Your task to perform on an android device: toggle location history Image 0: 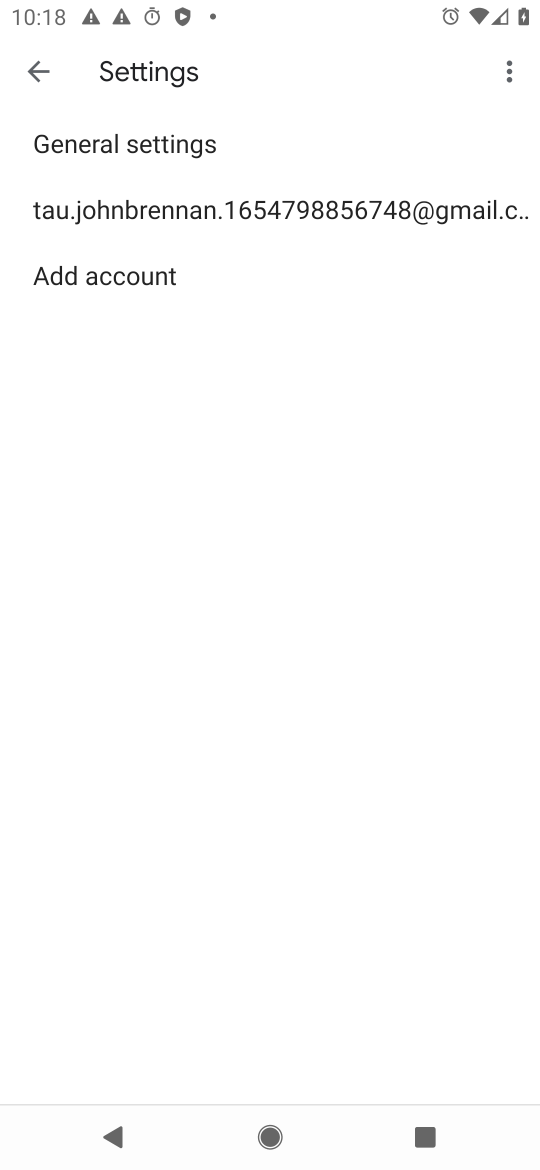
Step 0: drag from (244, 825) to (242, 306)
Your task to perform on an android device: toggle location history Image 1: 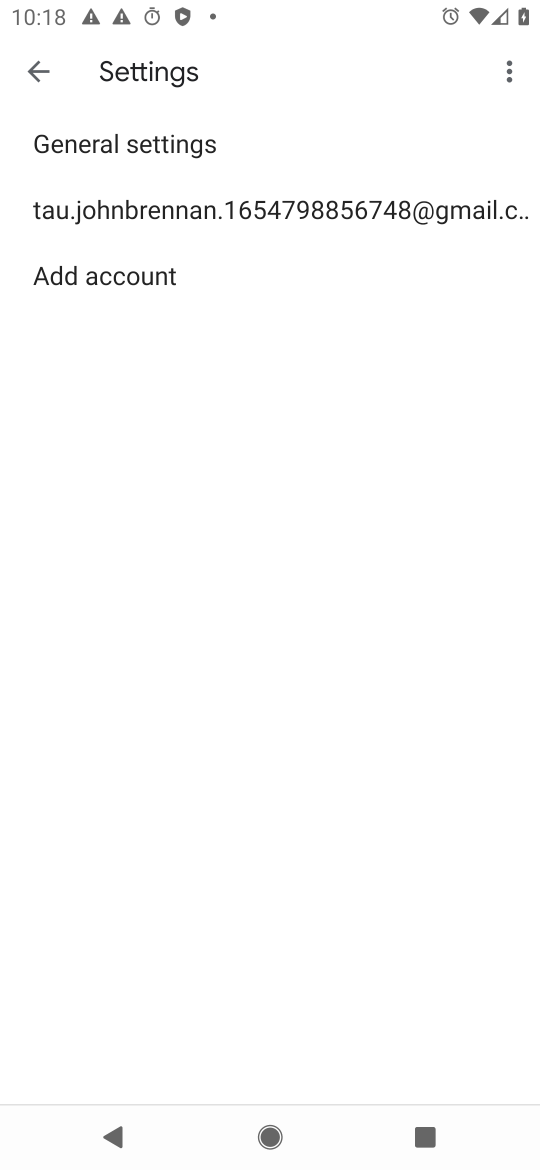
Step 1: press home button
Your task to perform on an android device: toggle location history Image 2: 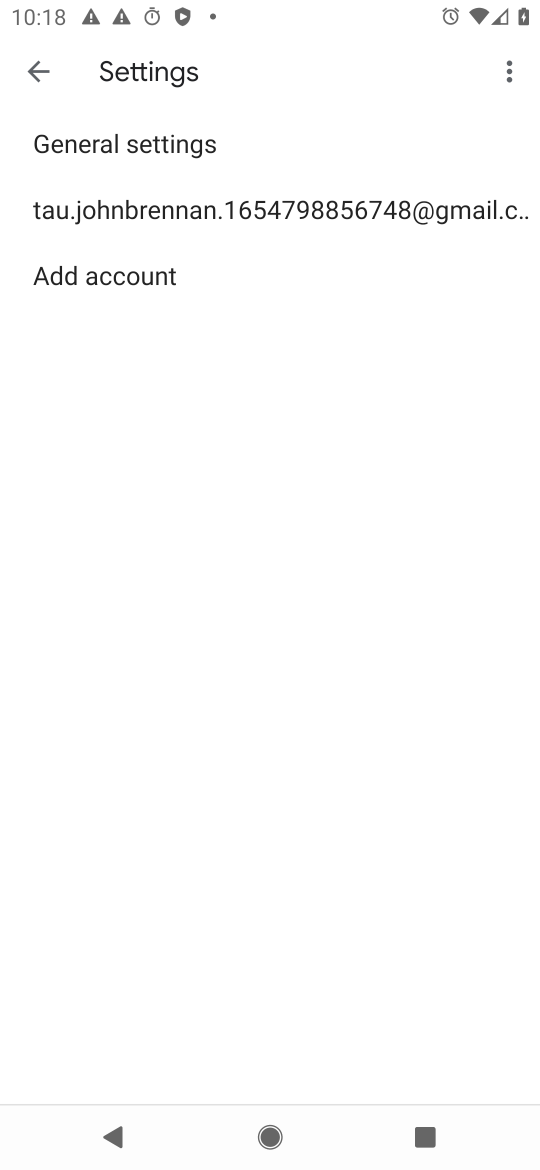
Step 2: drag from (294, 923) to (384, 163)
Your task to perform on an android device: toggle location history Image 3: 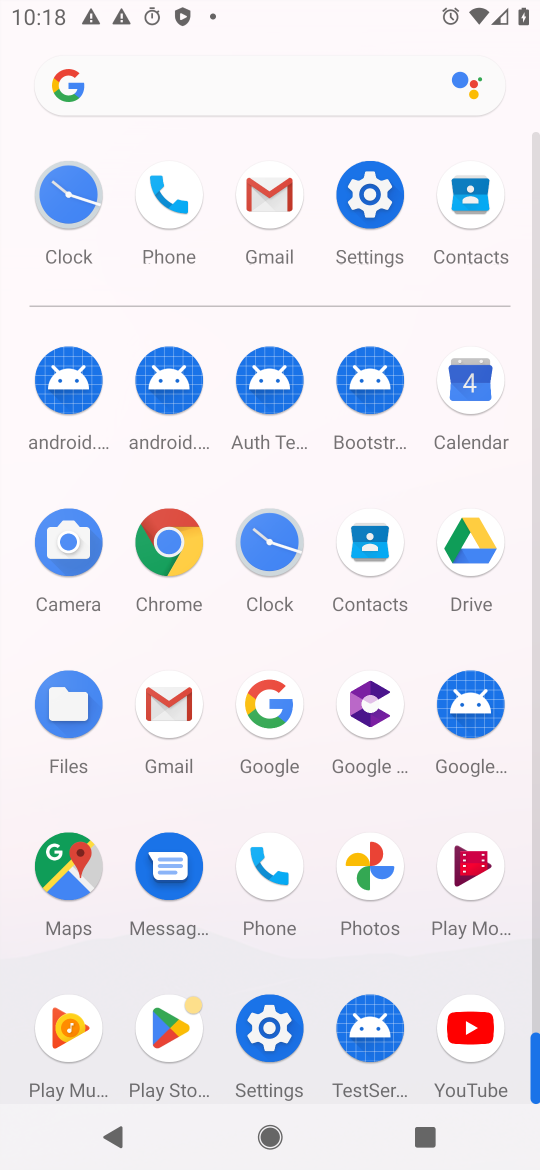
Step 3: click (254, 1037)
Your task to perform on an android device: toggle location history Image 4: 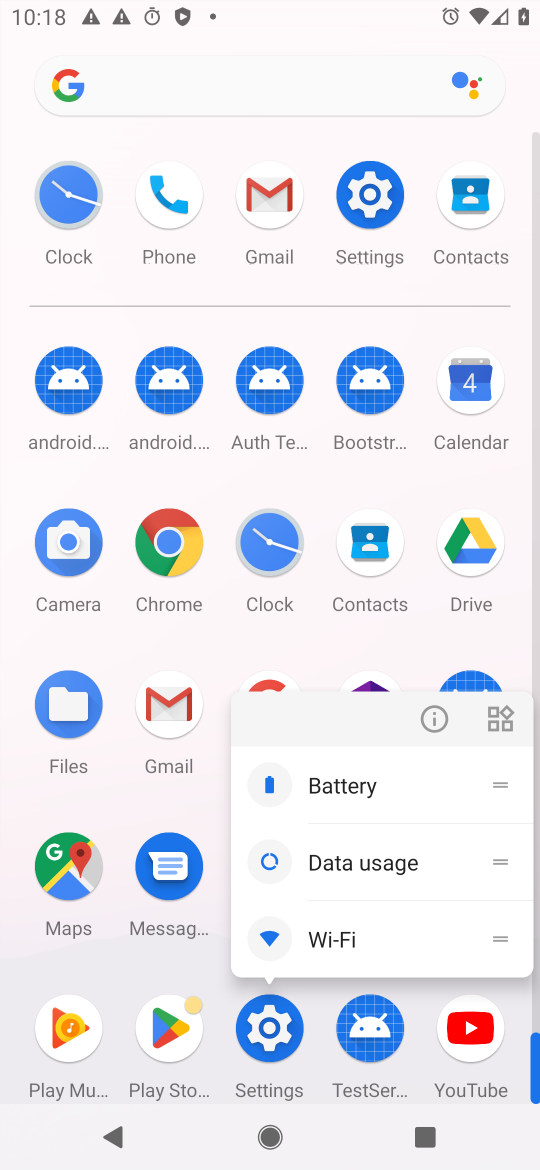
Step 4: click (424, 723)
Your task to perform on an android device: toggle location history Image 5: 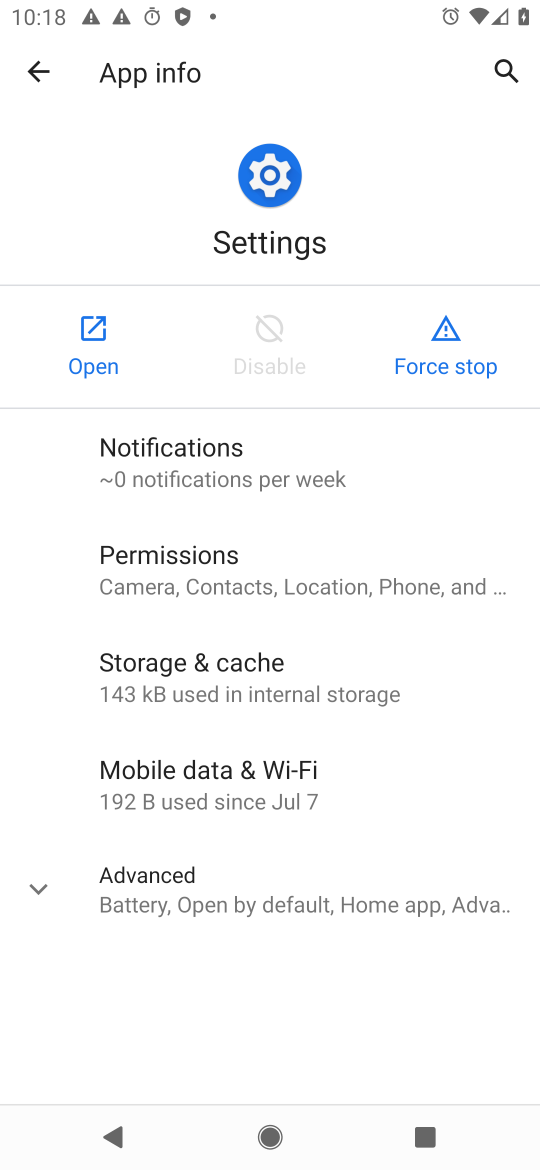
Step 5: click (105, 369)
Your task to perform on an android device: toggle location history Image 6: 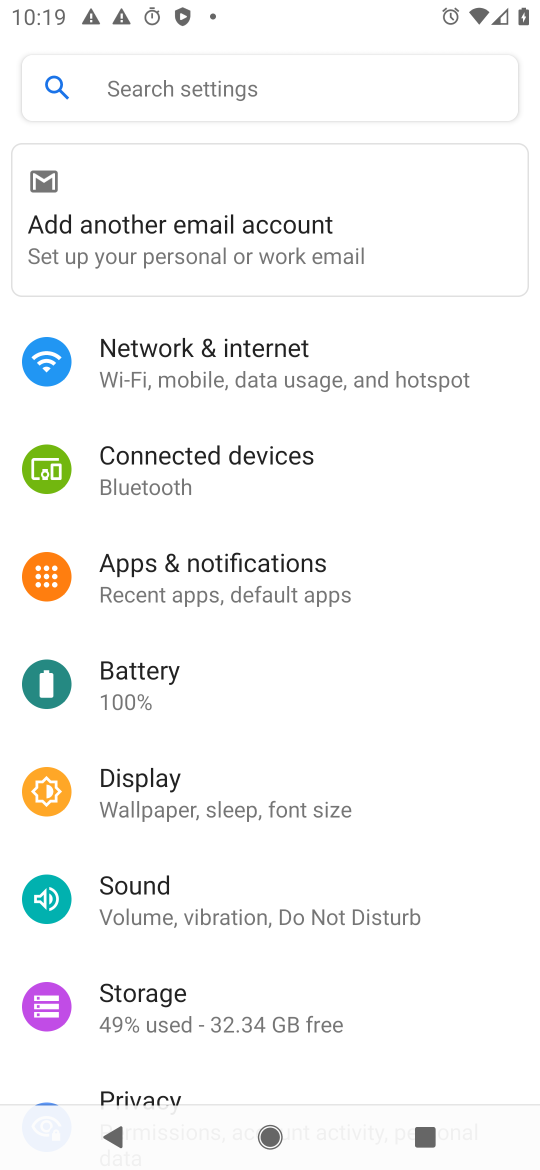
Step 6: drag from (179, 879) to (194, 216)
Your task to perform on an android device: toggle location history Image 7: 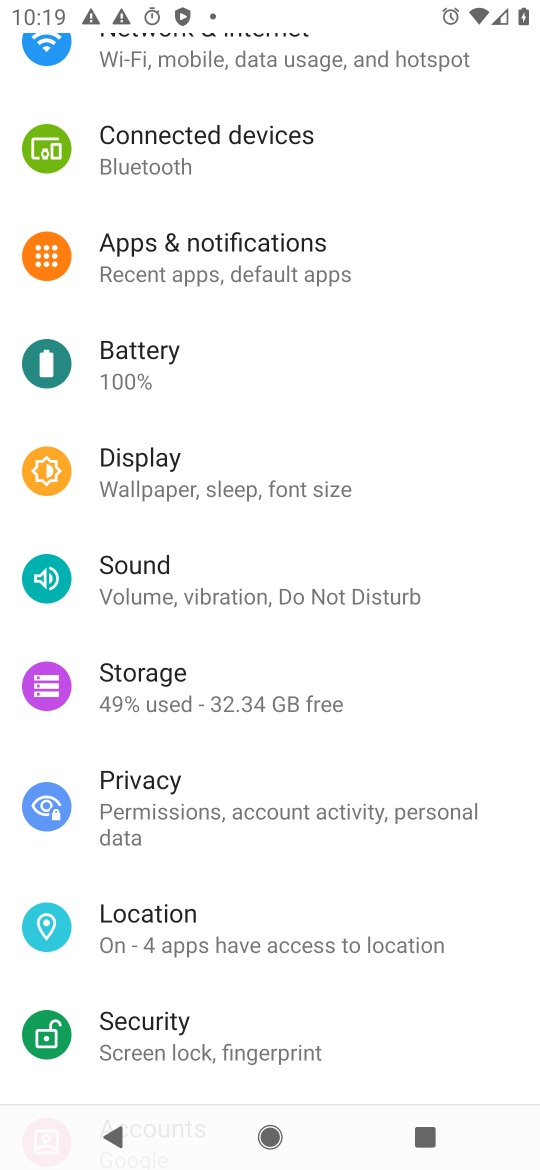
Step 7: drag from (277, 943) to (292, 466)
Your task to perform on an android device: toggle location history Image 8: 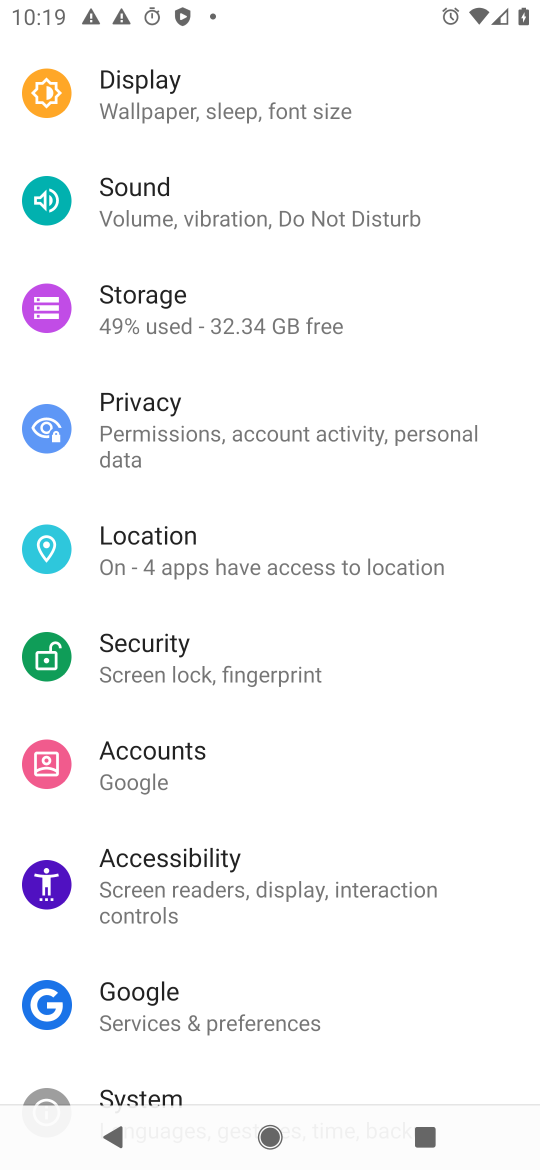
Step 8: drag from (225, 899) to (264, 464)
Your task to perform on an android device: toggle location history Image 9: 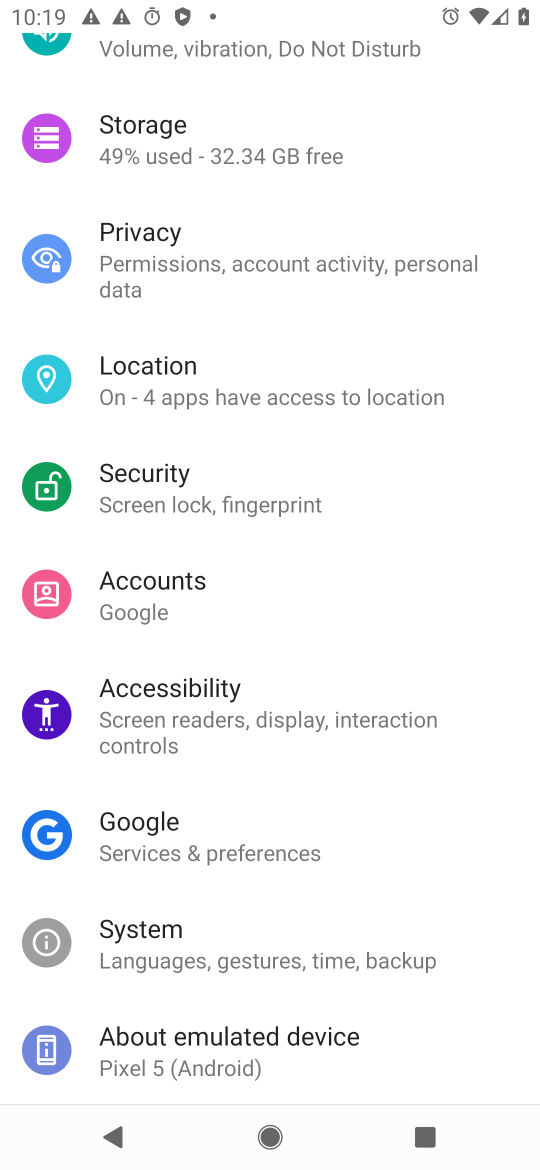
Step 9: click (213, 393)
Your task to perform on an android device: toggle location history Image 10: 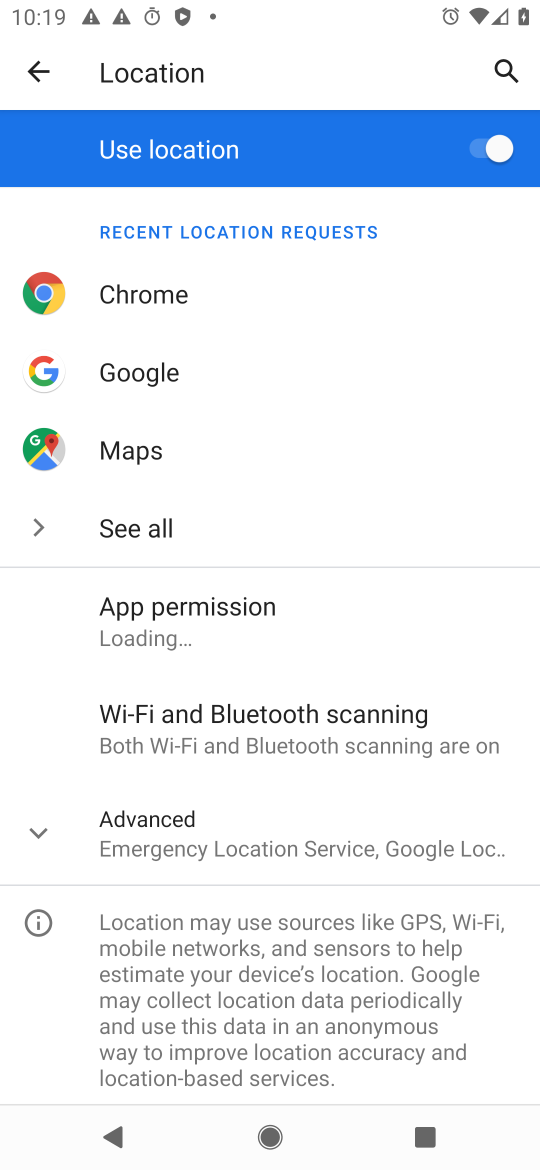
Step 10: click (171, 855)
Your task to perform on an android device: toggle location history Image 11: 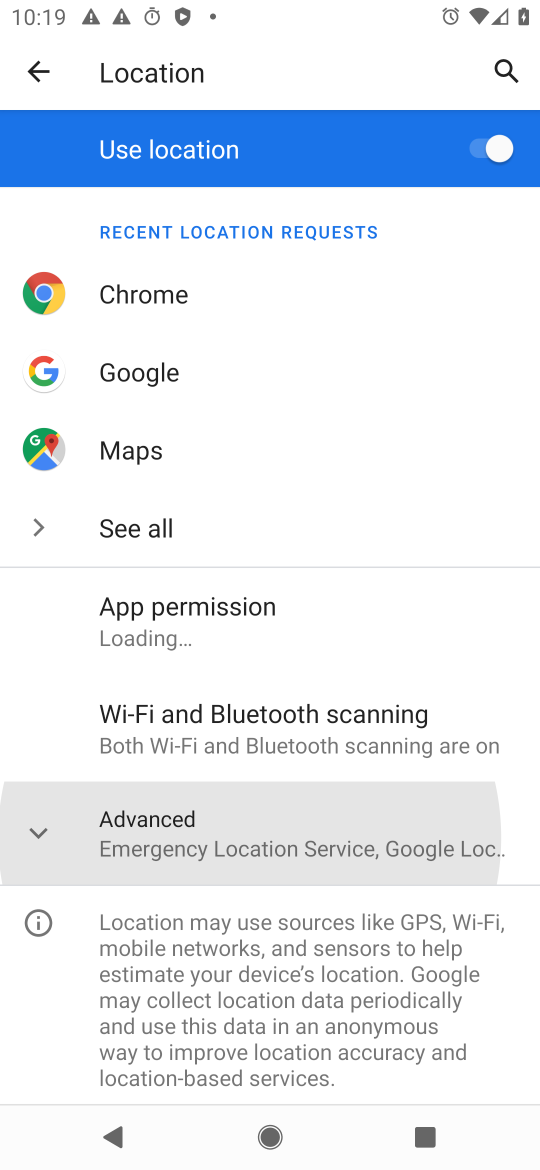
Step 11: drag from (183, 717) to (386, 194)
Your task to perform on an android device: toggle location history Image 12: 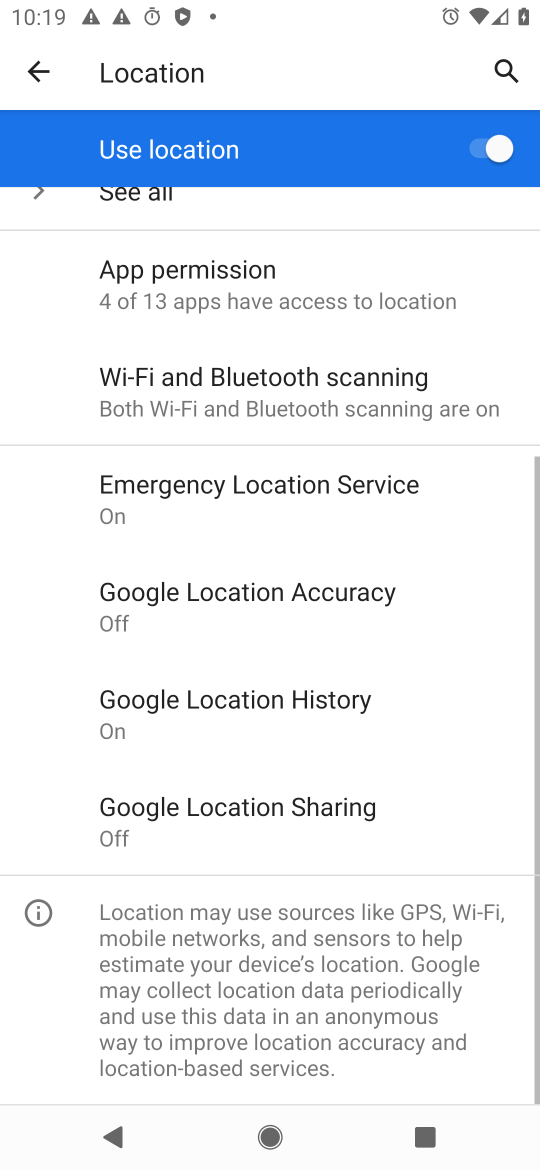
Step 12: click (285, 715)
Your task to perform on an android device: toggle location history Image 13: 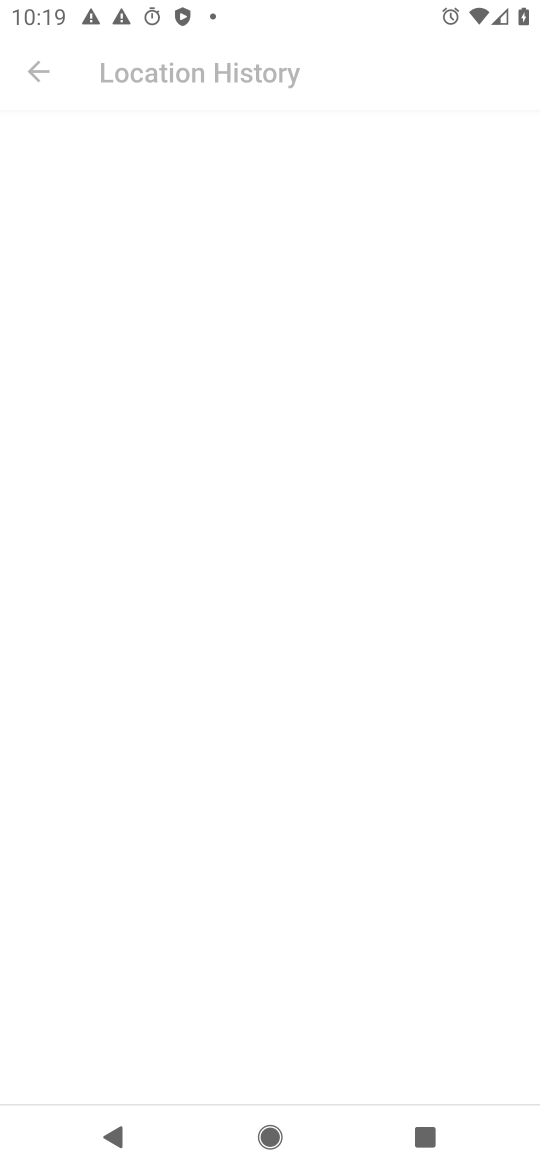
Step 13: drag from (290, 844) to (223, 422)
Your task to perform on an android device: toggle location history Image 14: 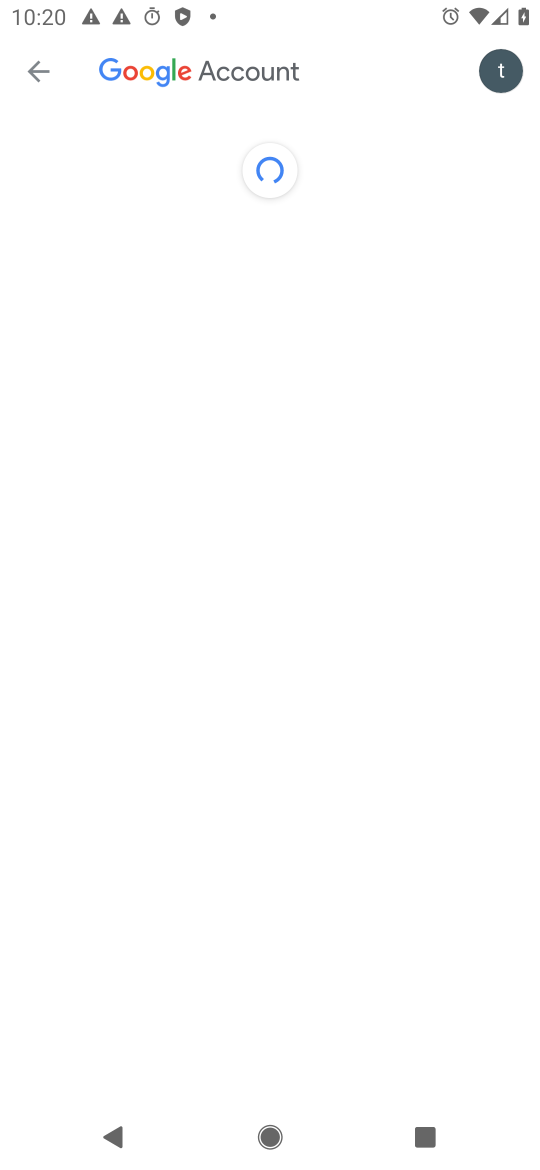
Step 14: drag from (196, 1041) to (220, 673)
Your task to perform on an android device: toggle location history Image 15: 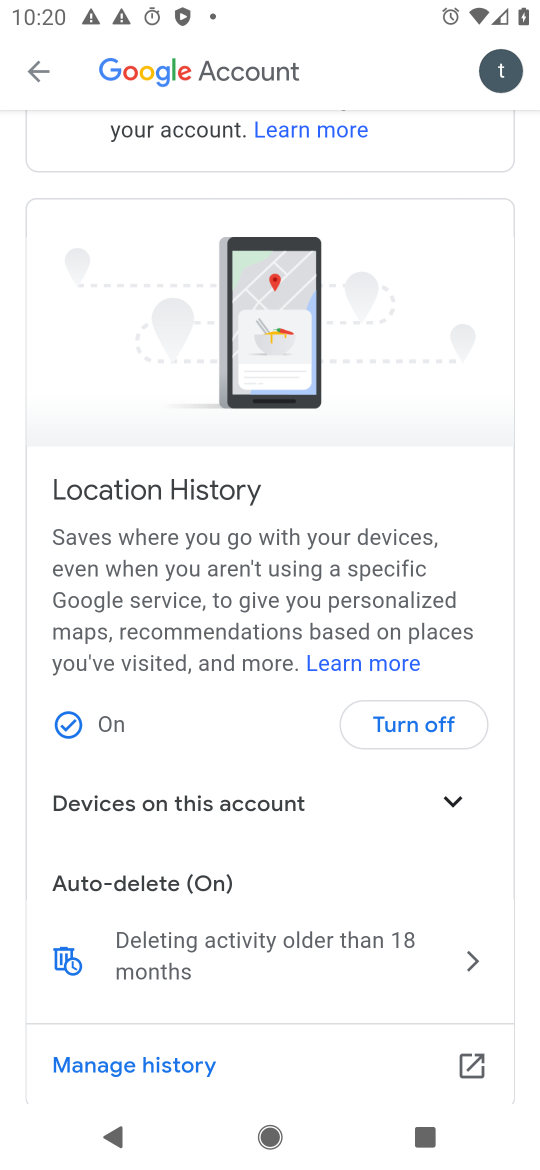
Step 15: click (417, 714)
Your task to perform on an android device: toggle location history Image 16: 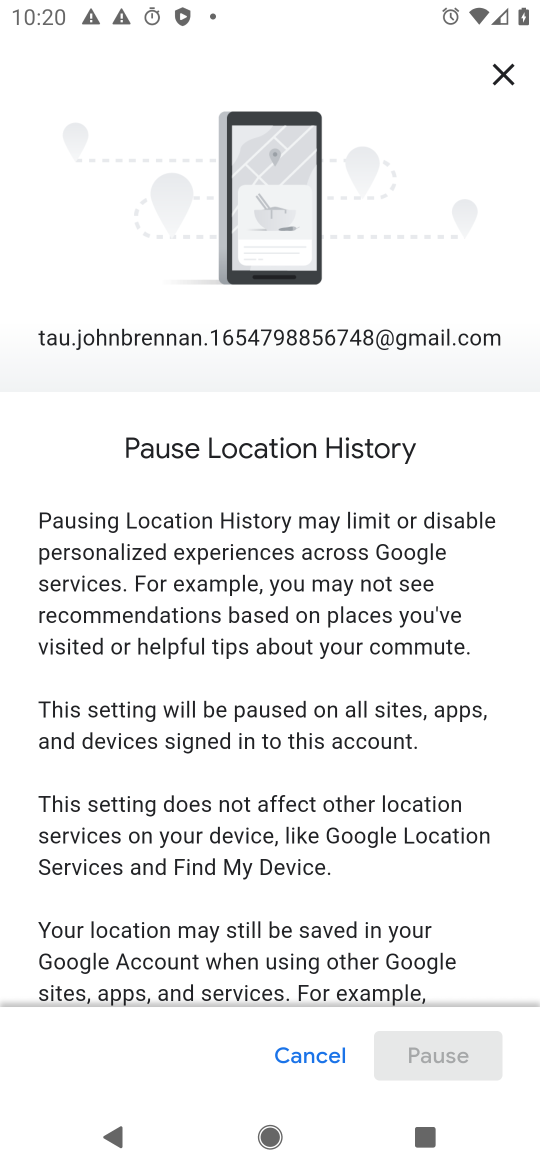
Step 16: drag from (300, 915) to (351, 284)
Your task to perform on an android device: toggle location history Image 17: 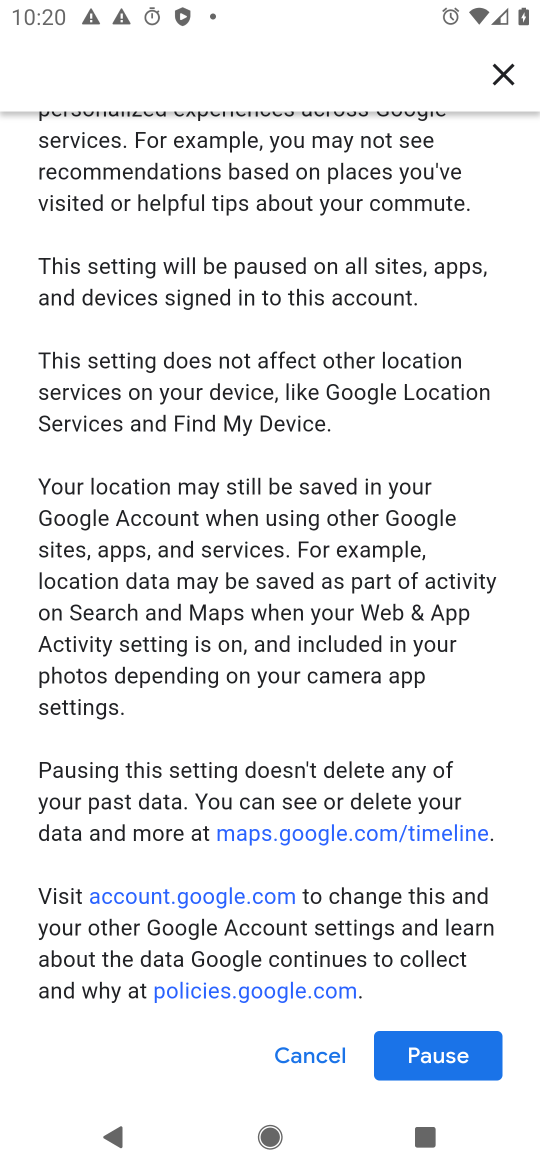
Step 17: click (461, 1057)
Your task to perform on an android device: toggle location history Image 18: 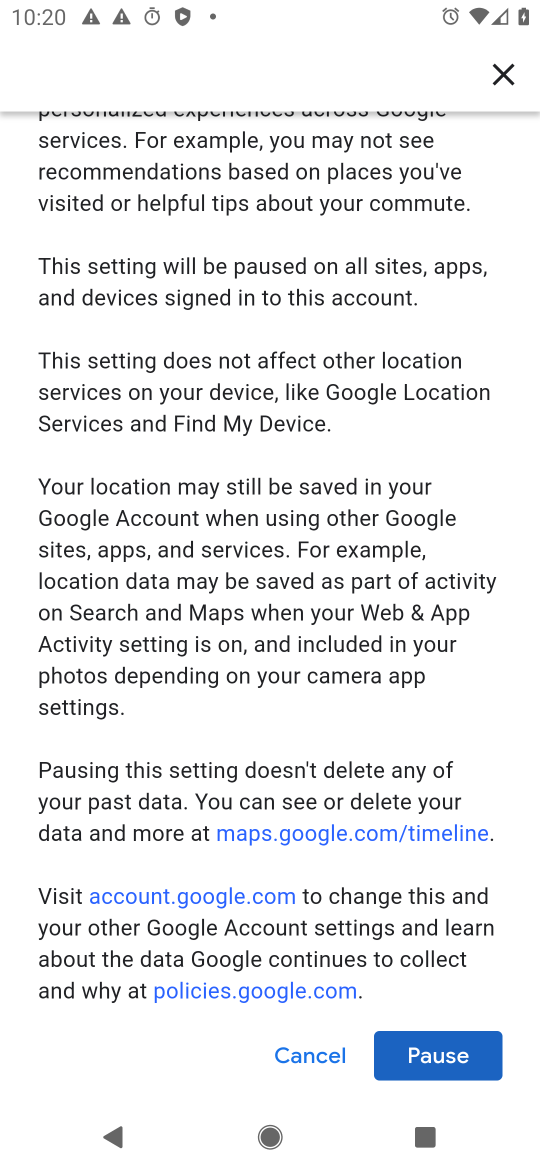
Step 18: drag from (285, 698) to (257, 286)
Your task to perform on an android device: toggle location history Image 19: 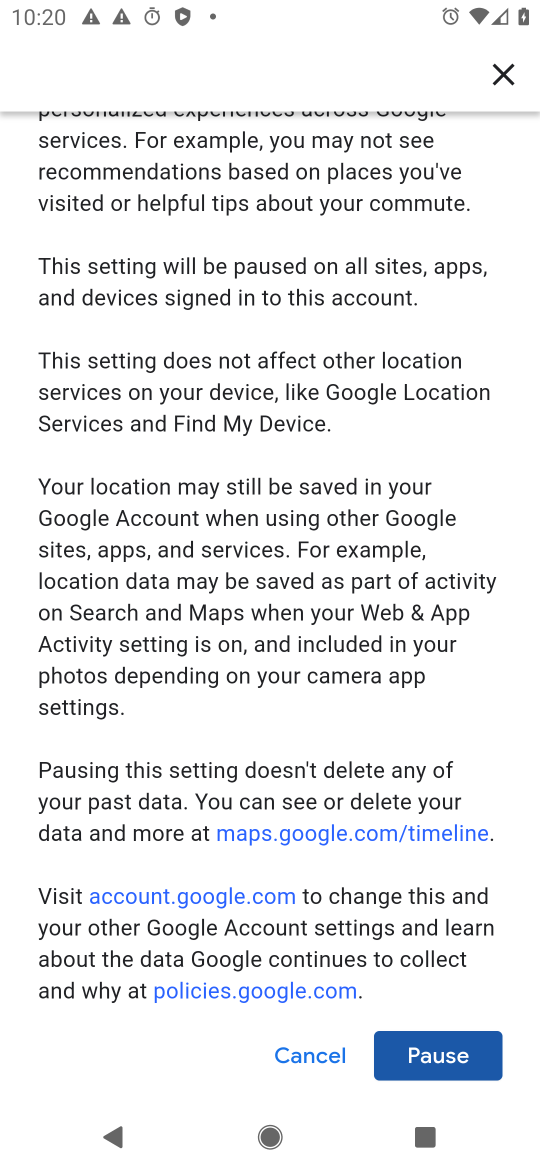
Step 19: click (431, 1048)
Your task to perform on an android device: toggle location history Image 20: 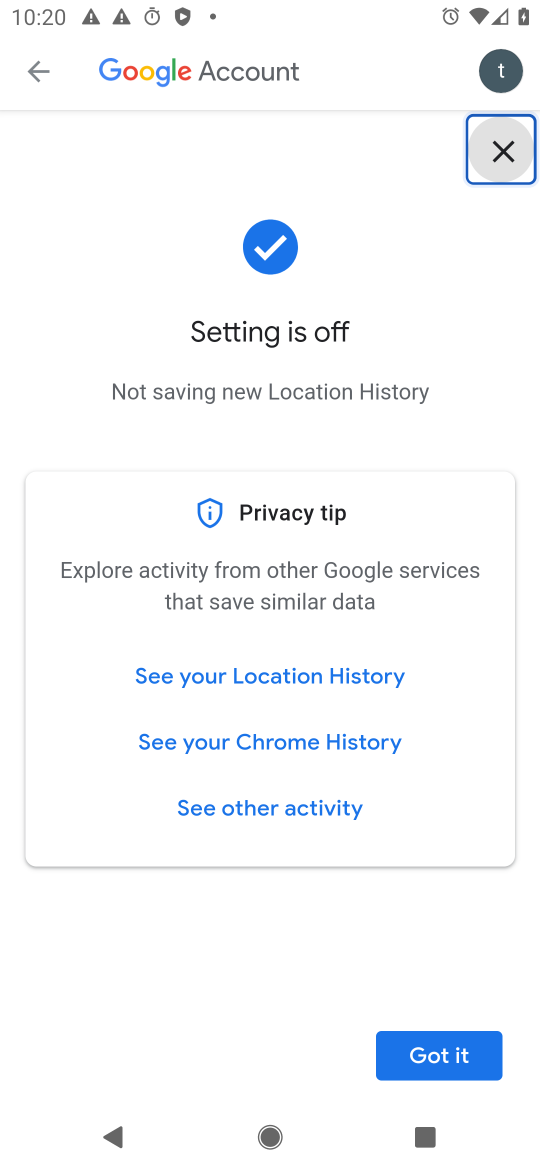
Step 20: drag from (333, 870) to (309, 582)
Your task to perform on an android device: toggle location history Image 21: 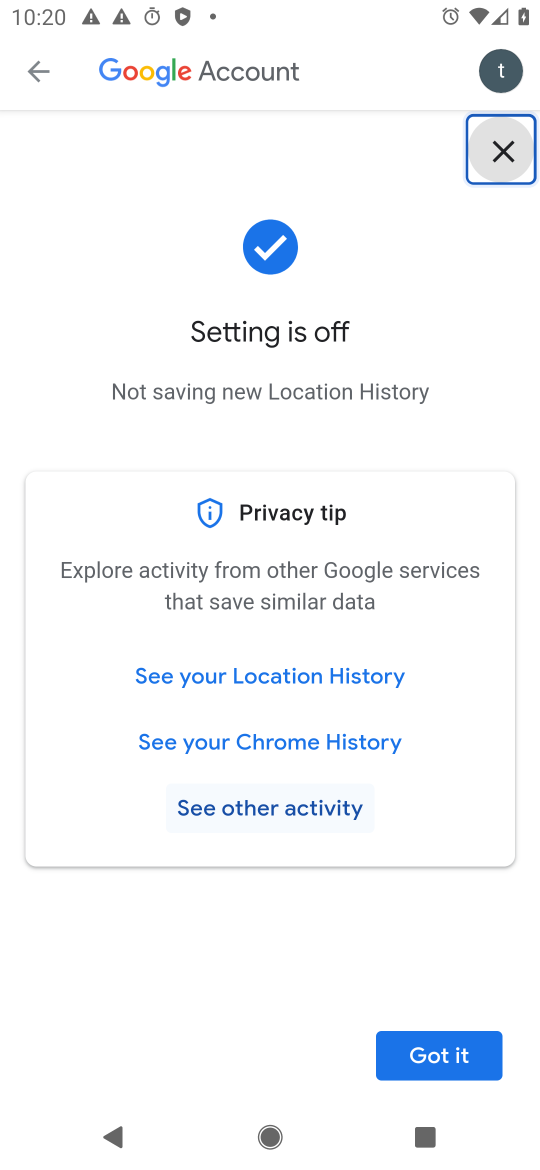
Step 21: click (466, 1066)
Your task to perform on an android device: toggle location history Image 22: 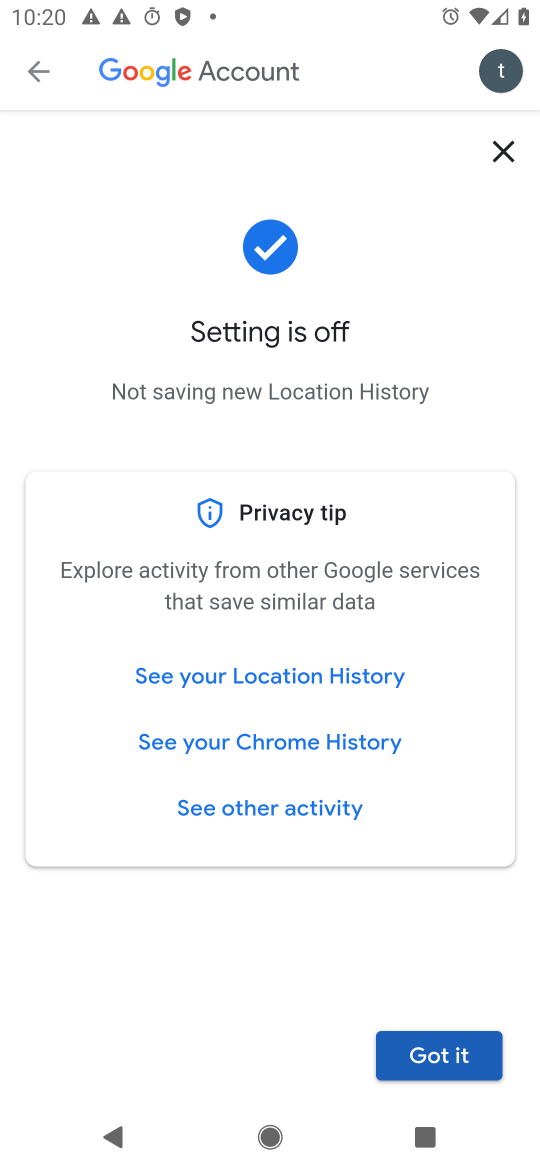
Step 22: click (425, 1053)
Your task to perform on an android device: toggle location history Image 23: 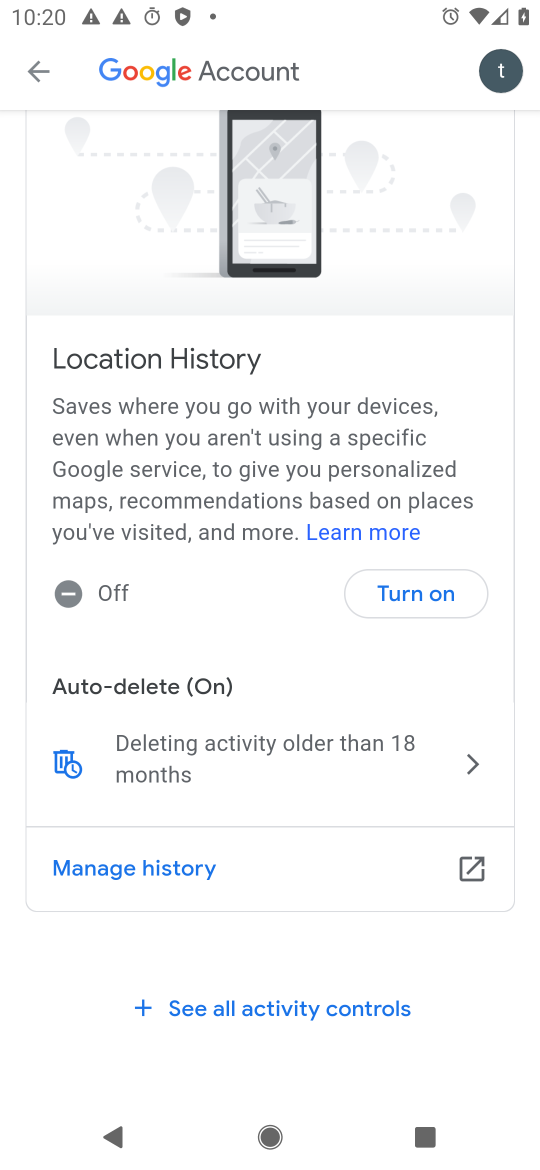
Step 23: task complete